Your task to perform on an android device: Go to Yahoo.com Image 0: 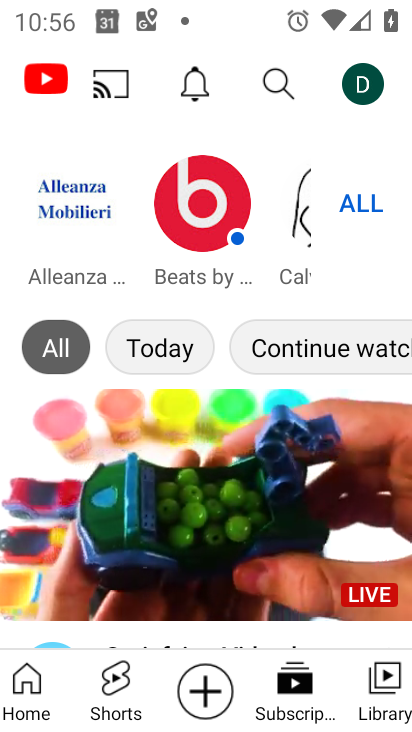
Step 0: press home button
Your task to perform on an android device: Go to Yahoo.com Image 1: 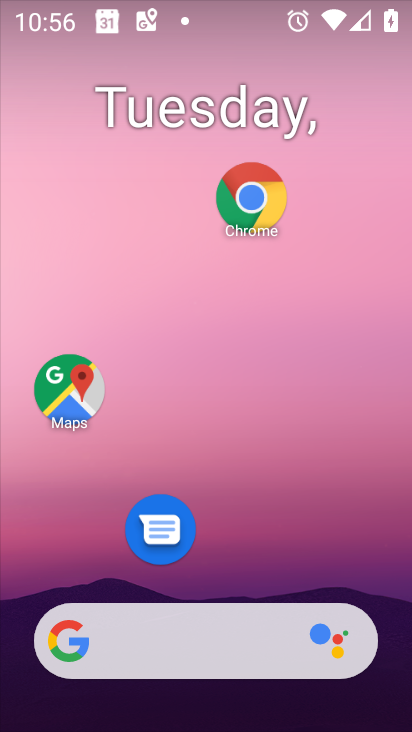
Step 1: click (256, 199)
Your task to perform on an android device: Go to Yahoo.com Image 2: 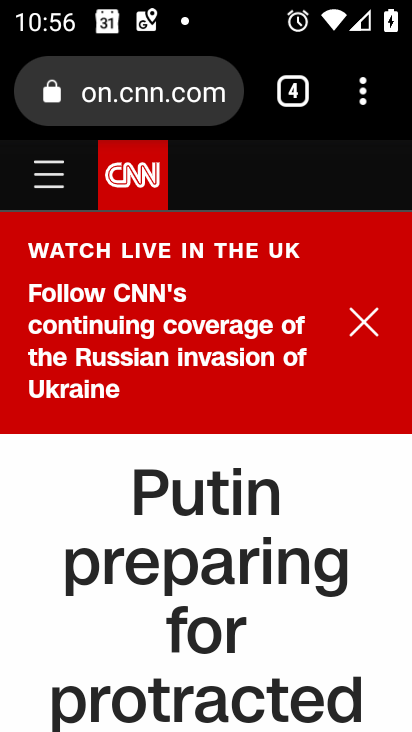
Step 2: click (130, 114)
Your task to perform on an android device: Go to Yahoo.com Image 3: 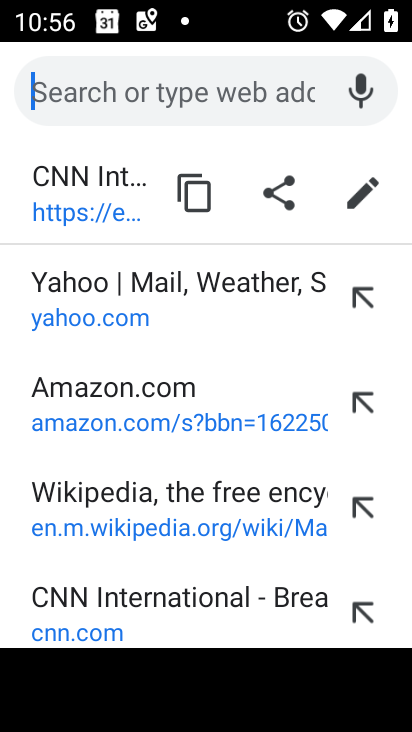
Step 3: click (197, 327)
Your task to perform on an android device: Go to Yahoo.com Image 4: 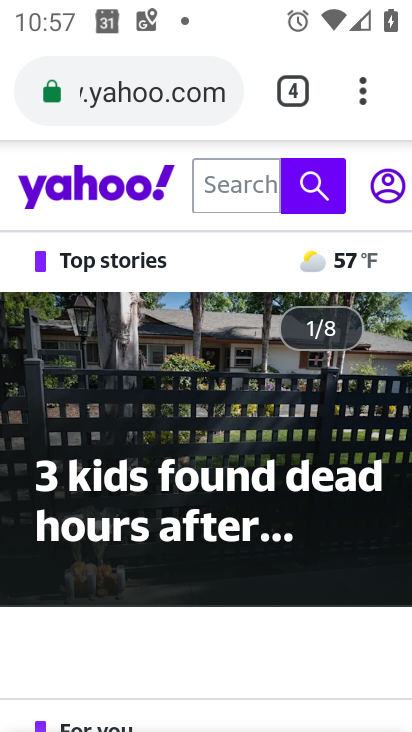
Step 4: task complete